Your task to perform on an android device: check google app version Image 0: 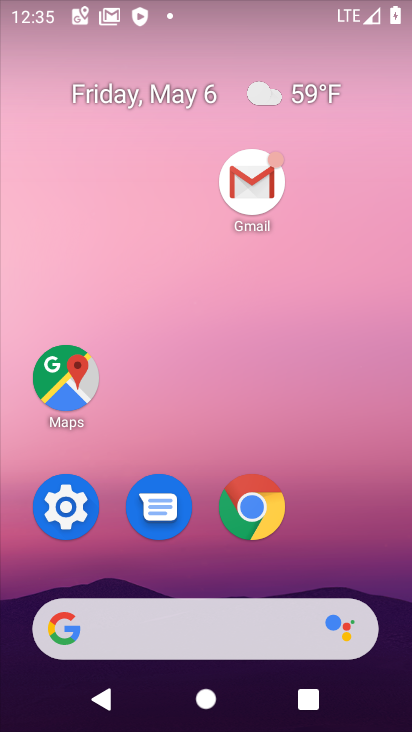
Step 0: drag from (363, 503) to (346, 116)
Your task to perform on an android device: check google app version Image 1: 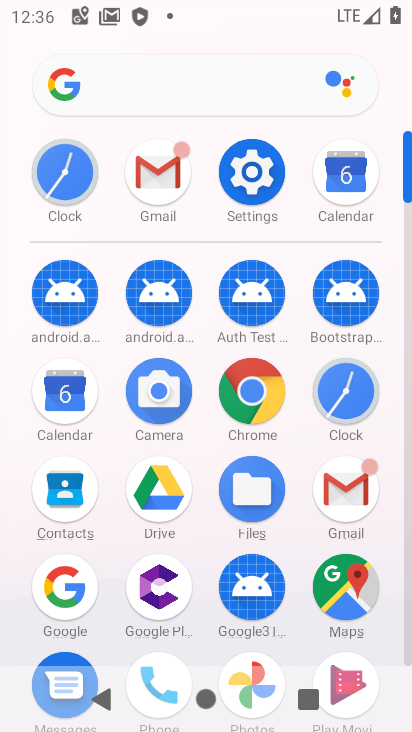
Step 1: click (66, 596)
Your task to perform on an android device: check google app version Image 2: 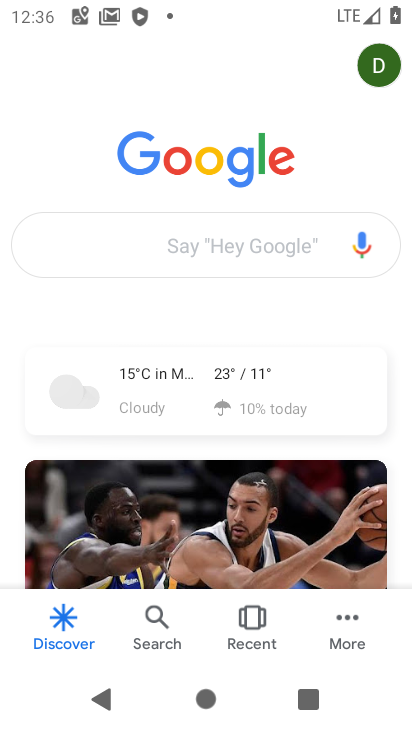
Step 2: click (340, 624)
Your task to perform on an android device: check google app version Image 3: 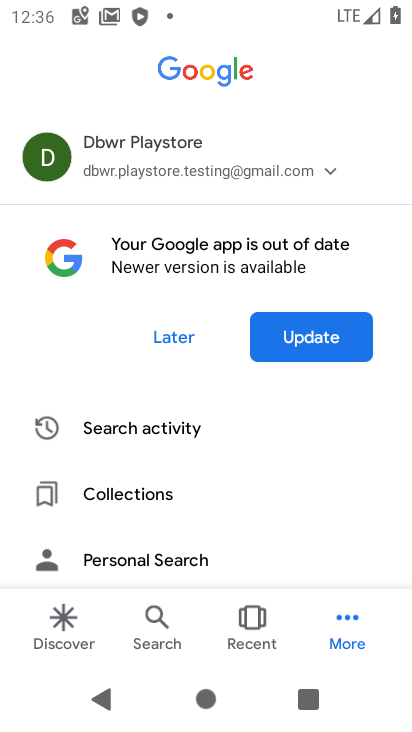
Step 3: drag from (305, 463) to (253, 23)
Your task to perform on an android device: check google app version Image 4: 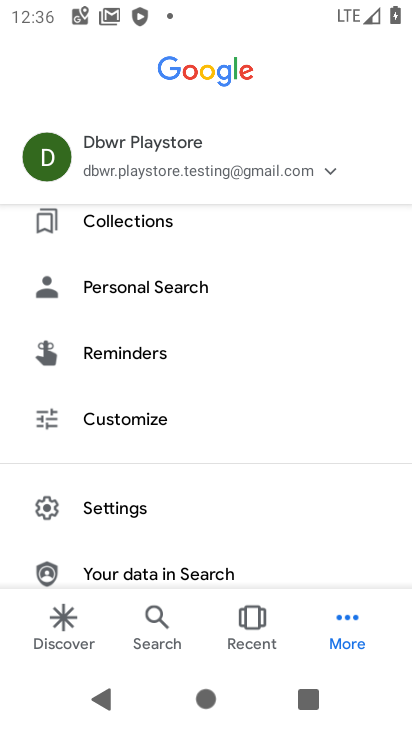
Step 4: click (94, 500)
Your task to perform on an android device: check google app version Image 5: 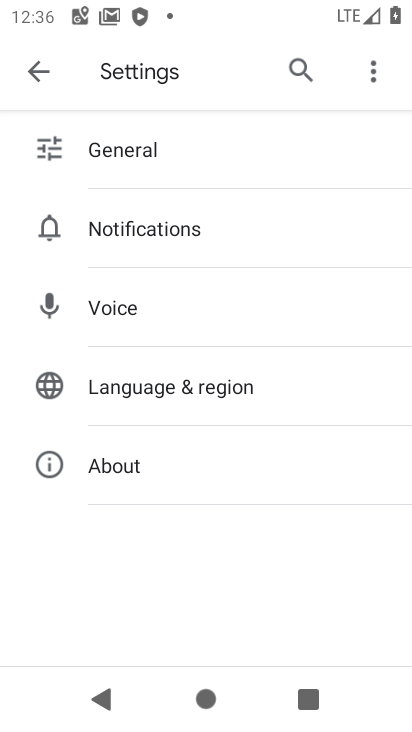
Step 5: drag from (294, 238) to (321, 596)
Your task to perform on an android device: check google app version Image 6: 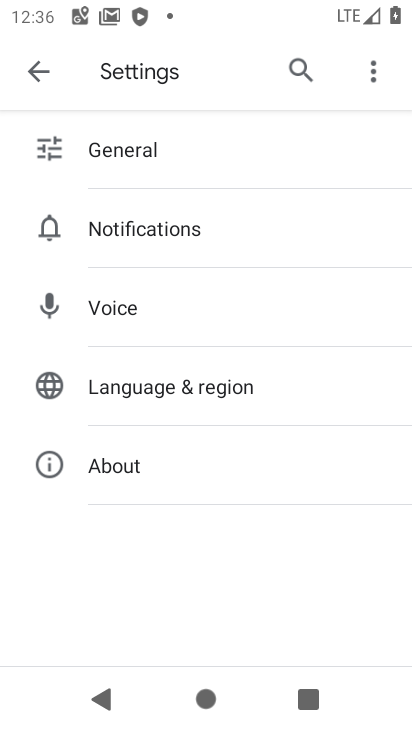
Step 6: click (114, 464)
Your task to perform on an android device: check google app version Image 7: 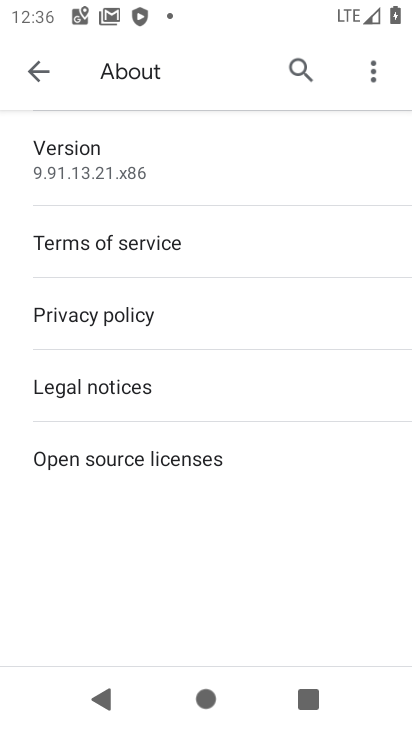
Step 7: task complete